Your task to perform on an android device: Open CNN.com Image 0: 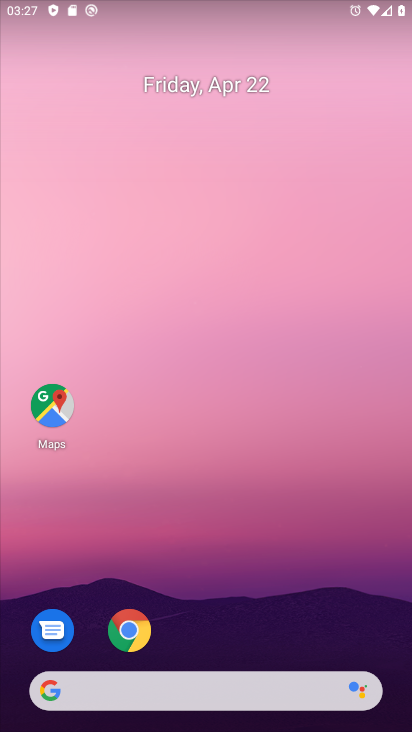
Step 0: click (124, 618)
Your task to perform on an android device: Open CNN.com Image 1: 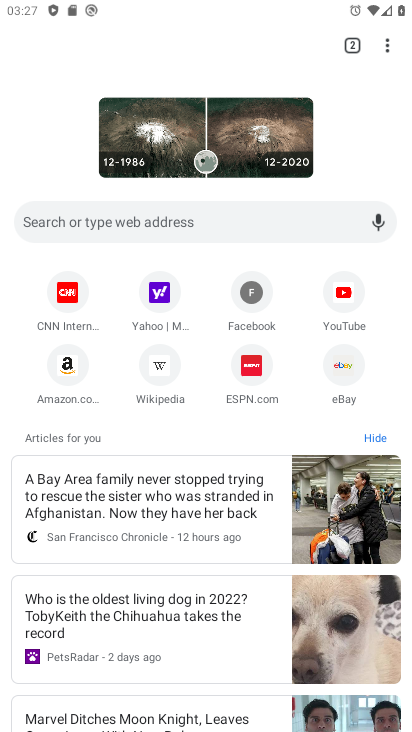
Step 1: click (234, 220)
Your task to perform on an android device: Open CNN.com Image 2: 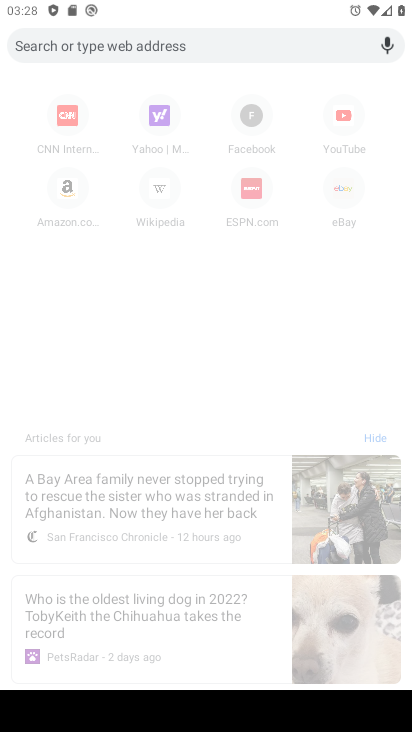
Step 2: type "CNN.com"
Your task to perform on an android device: Open CNN.com Image 3: 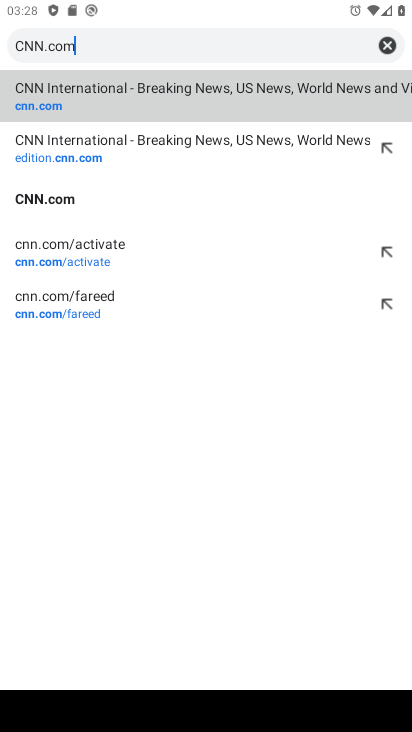
Step 3: click (72, 194)
Your task to perform on an android device: Open CNN.com Image 4: 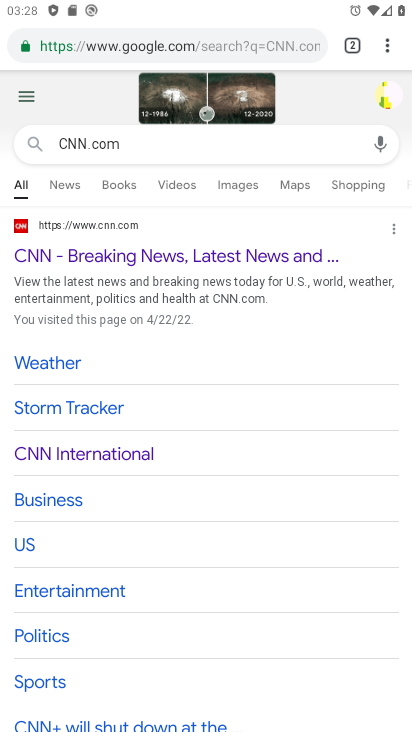
Step 4: task complete